Your task to perform on an android device: turn on data saver in the chrome app Image 0: 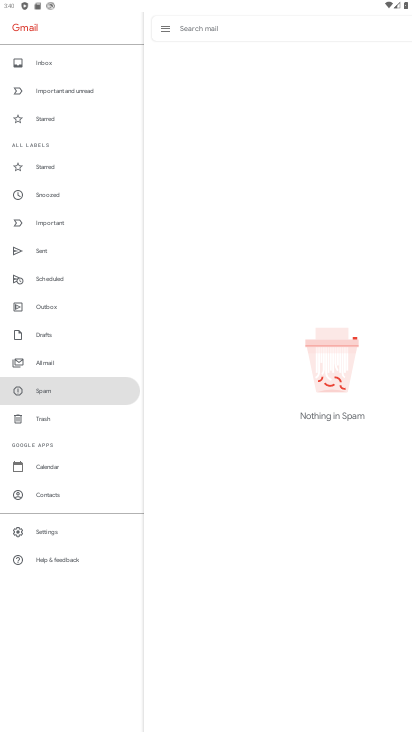
Step 0: press home button
Your task to perform on an android device: turn on data saver in the chrome app Image 1: 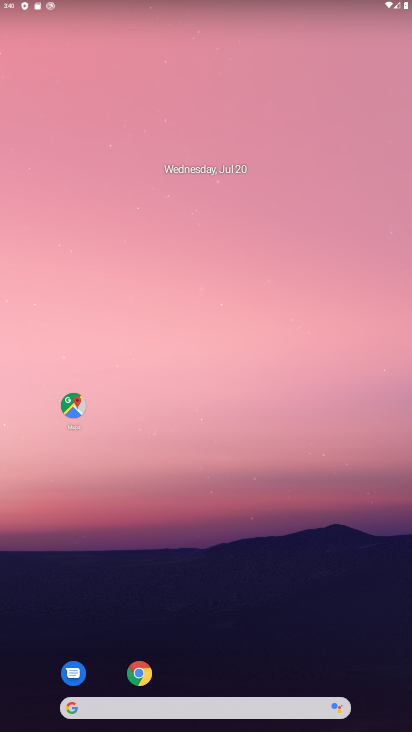
Step 1: click (138, 680)
Your task to perform on an android device: turn on data saver in the chrome app Image 2: 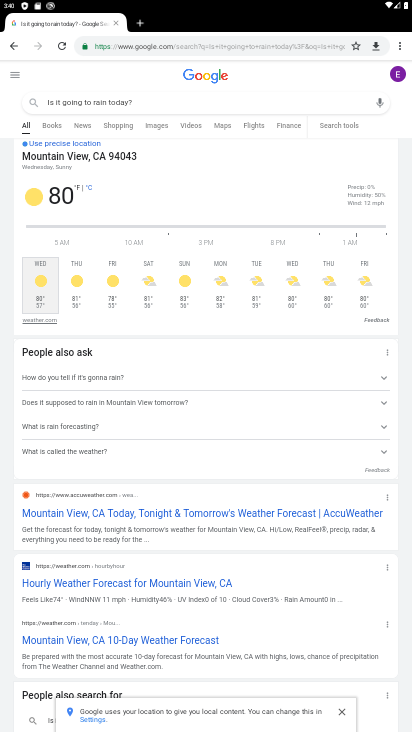
Step 2: click (140, 23)
Your task to perform on an android device: turn on data saver in the chrome app Image 3: 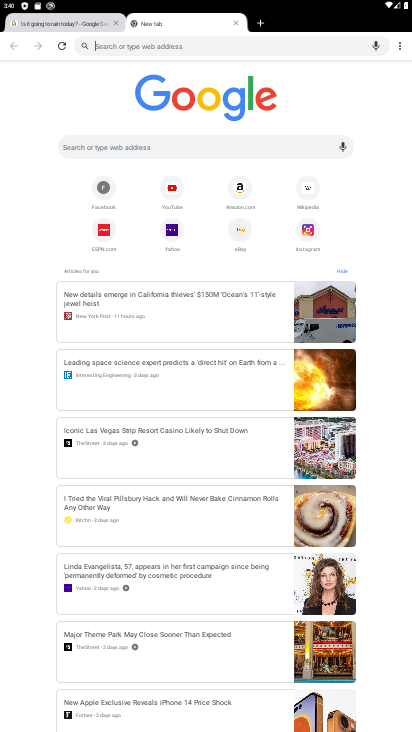
Step 3: click (406, 48)
Your task to perform on an android device: turn on data saver in the chrome app Image 4: 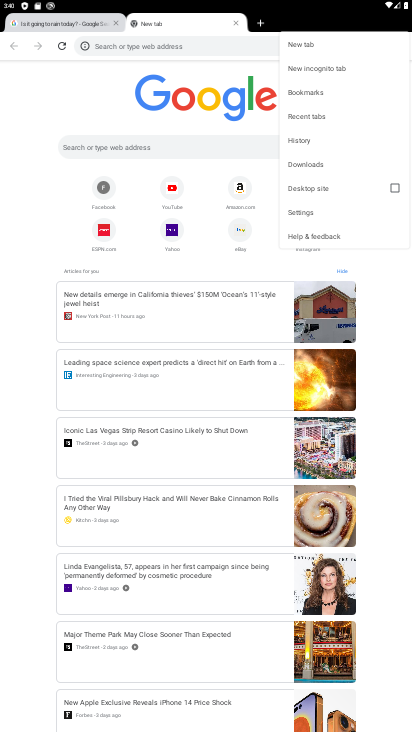
Step 4: click (333, 214)
Your task to perform on an android device: turn on data saver in the chrome app Image 5: 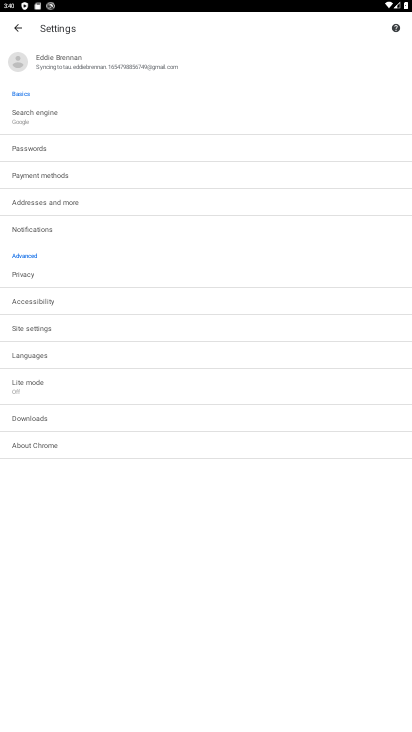
Step 5: click (84, 395)
Your task to perform on an android device: turn on data saver in the chrome app Image 6: 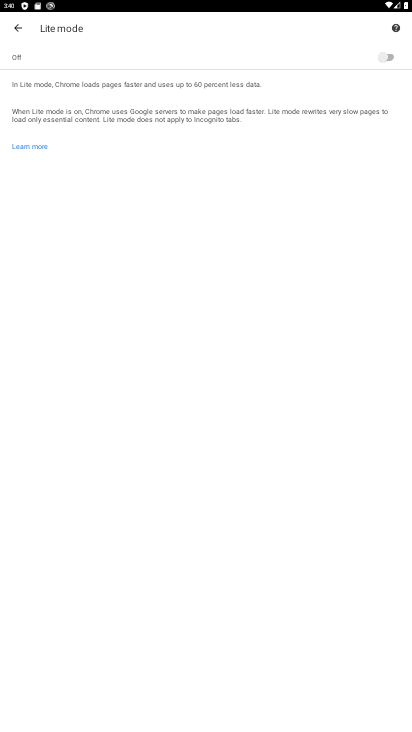
Step 6: click (384, 56)
Your task to perform on an android device: turn on data saver in the chrome app Image 7: 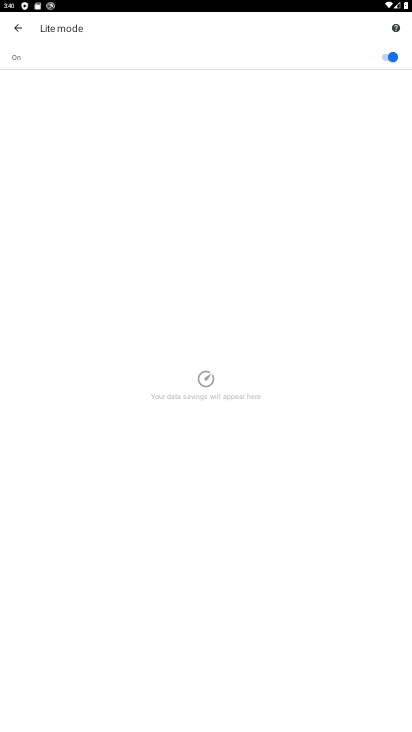
Step 7: task complete